Your task to perform on an android device: create a new album in the google photos Image 0: 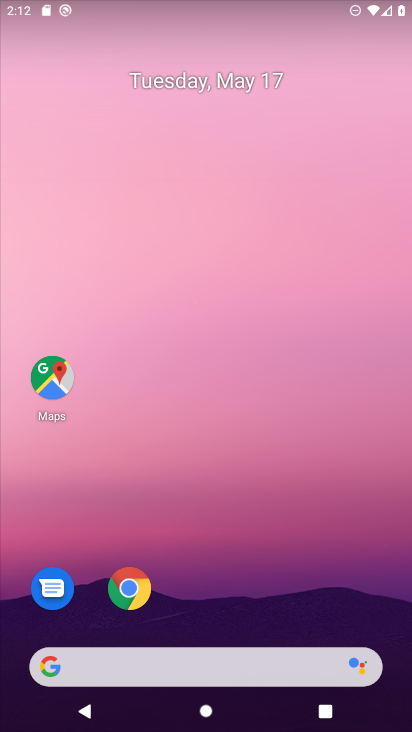
Step 0: drag from (194, 562) to (147, 110)
Your task to perform on an android device: create a new album in the google photos Image 1: 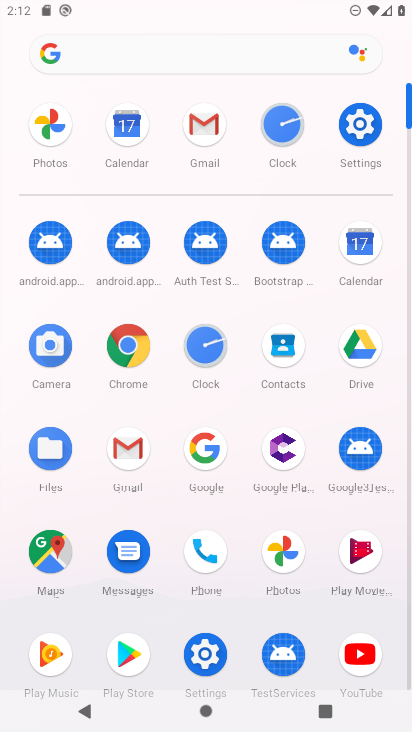
Step 1: click (288, 565)
Your task to perform on an android device: create a new album in the google photos Image 2: 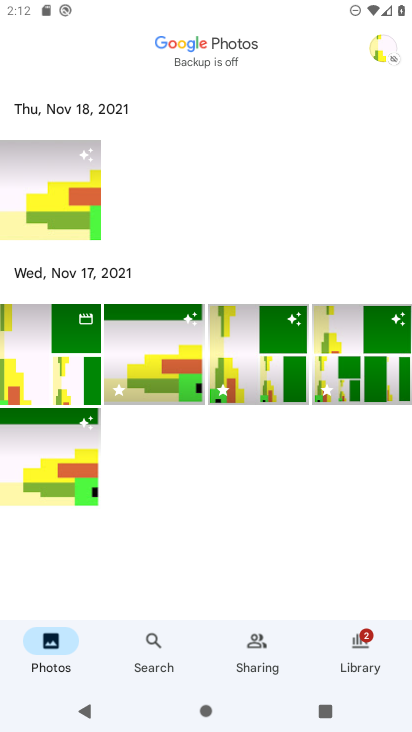
Step 2: click (164, 637)
Your task to perform on an android device: create a new album in the google photos Image 3: 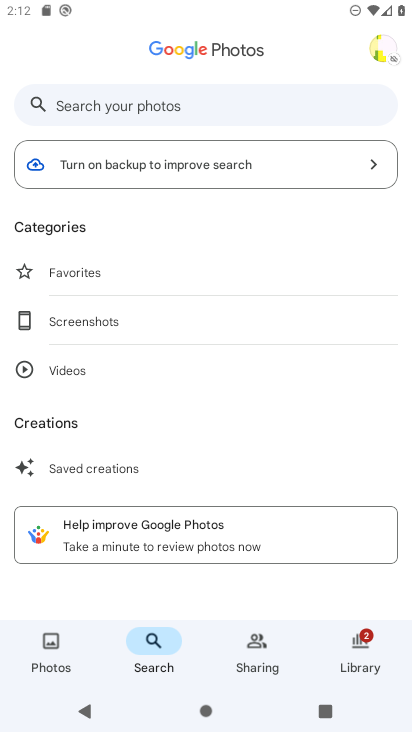
Step 3: click (371, 655)
Your task to perform on an android device: create a new album in the google photos Image 4: 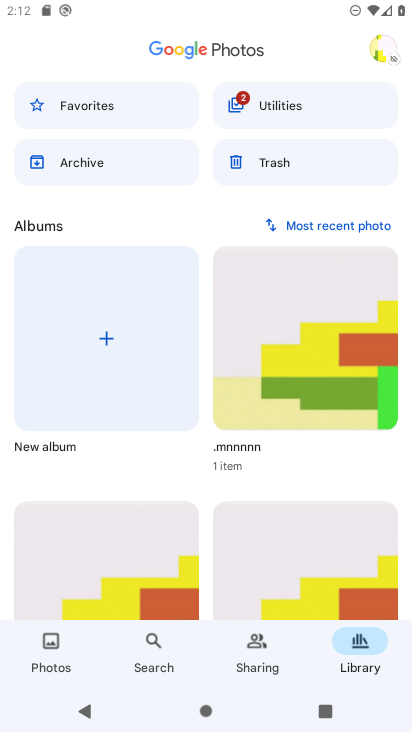
Step 4: click (105, 361)
Your task to perform on an android device: create a new album in the google photos Image 5: 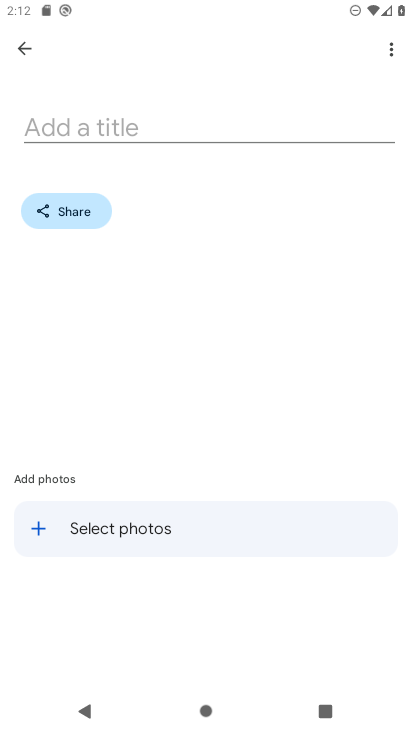
Step 5: click (113, 124)
Your task to perform on an android device: create a new album in the google photos Image 6: 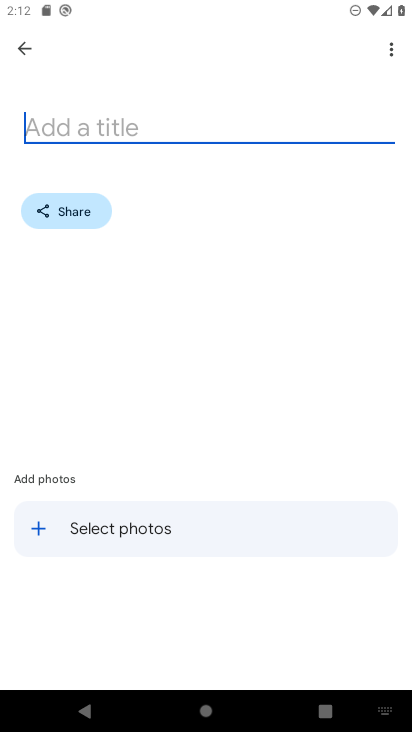
Step 6: type "gdagh"
Your task to perform on an android device: create a new album in the google photos Image 7: 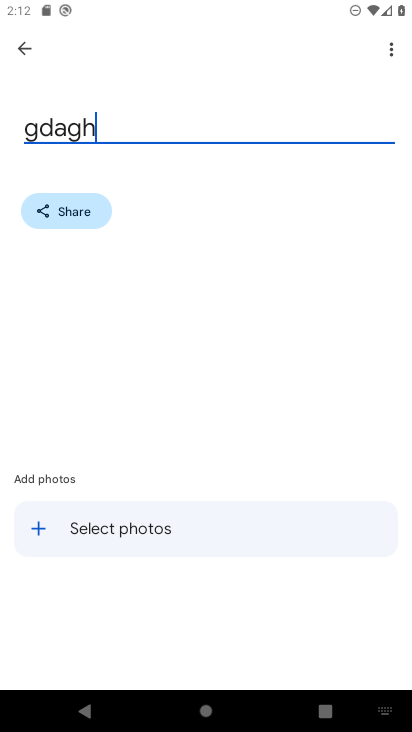
Step 7: click (78, 525)
Your task to perform on an android device: create a new album in the google photos Image 8: 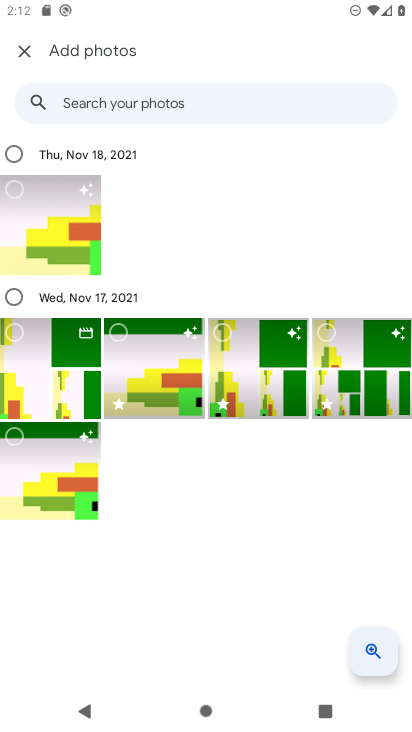
Step 8: click (16, 157)
Your task to perform on an android device: create a new album in the google photos Image 9: 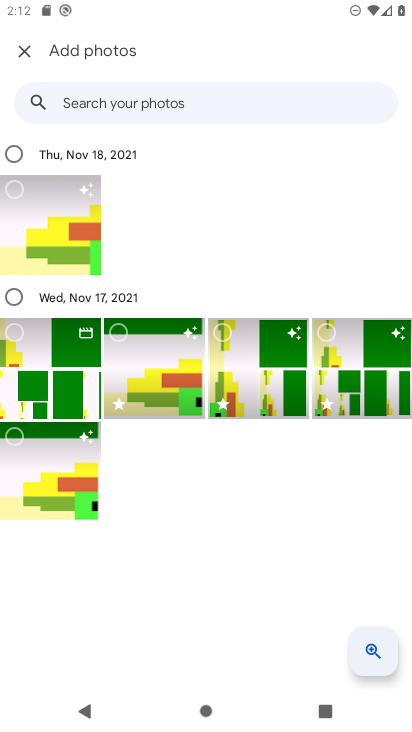
Step 9: click (13, 296)
Your task to perform on an android device: create a new album in the google photos Image 10: 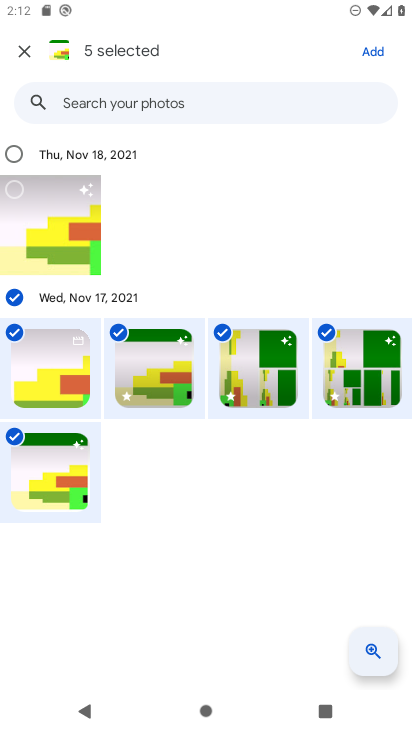
Step 10: click (13, 153)
Your task to perform on an android device: create a new album in the google photos Image 11: 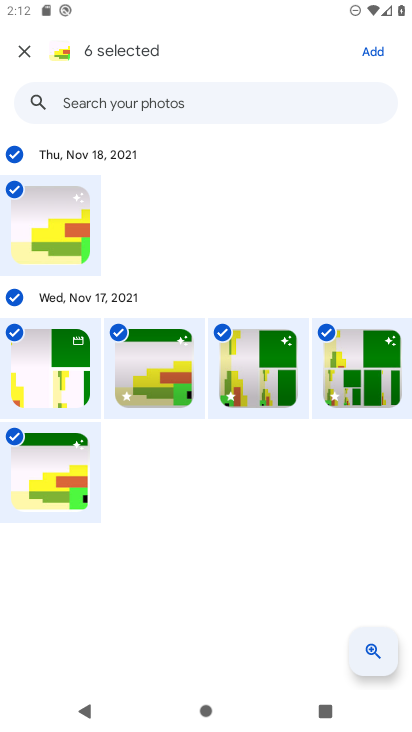
Step 11: click (379, 50)
Your task to perform on an android device: create a new album in the google photos Image 12: 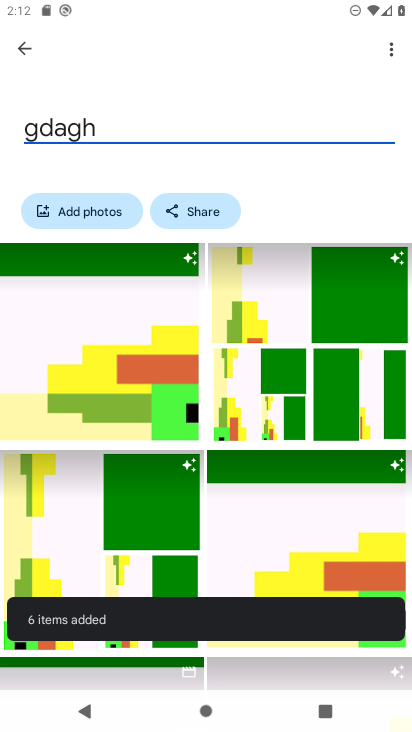
Step 12: click (197, 205)
Your task to perform on an android device: create a new album in the google photos Image 13: 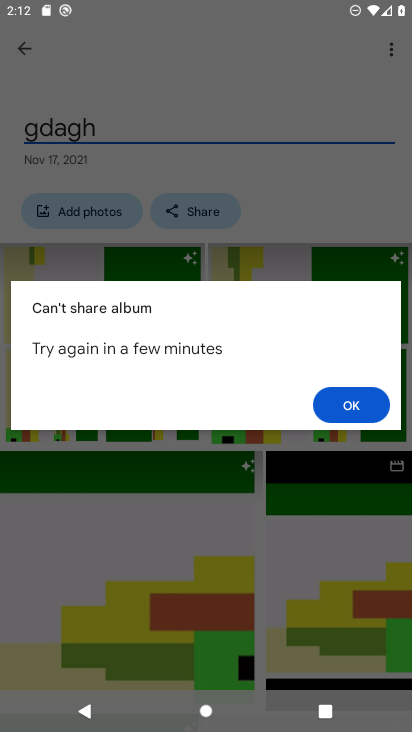
Step 13: click (343, 417)
Your task to perform on an android device: create a new album in the google photos Image 14: 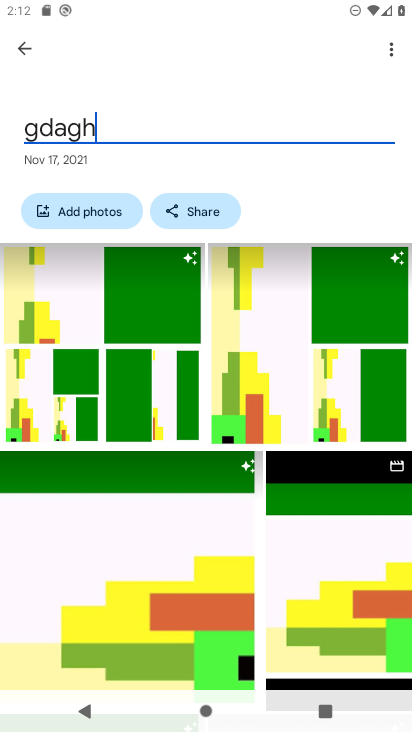
Step 14: drag from (272, 552) to (297, 189)
Your task to perform on an android device: create a new album in the google photos Image 15: 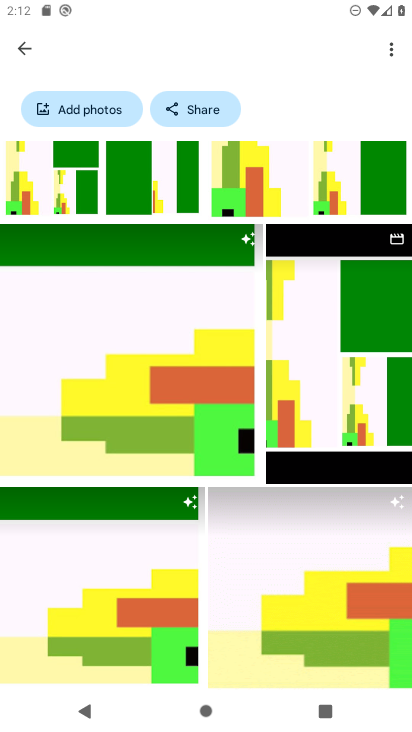
Step 15: click (388, 53)
Your task to perform on an android device: create a new album in the google photos Image 16: 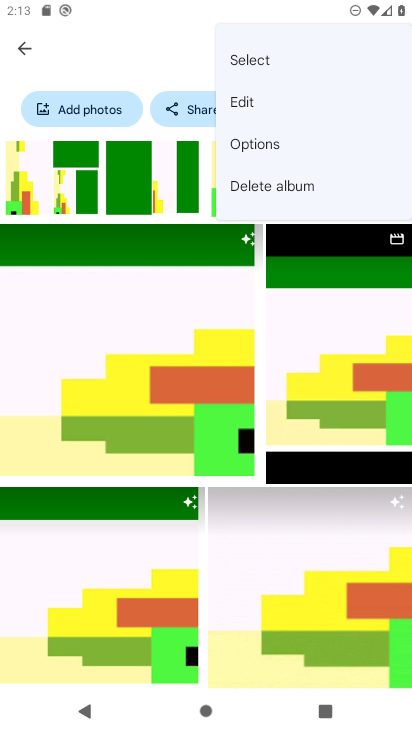
Step 16: click (253, 145)
Your task to perform on an android device: create a new album in the google photos Image 17: 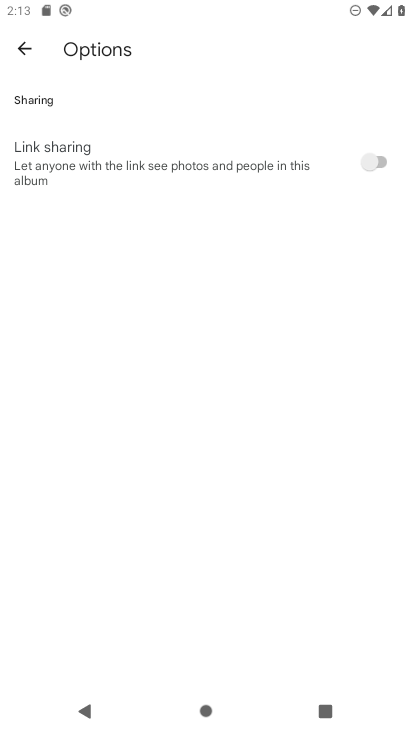
Step 17: click (32, 49)
Your task to perform on an android device: create a new album in the google photos Image 18: 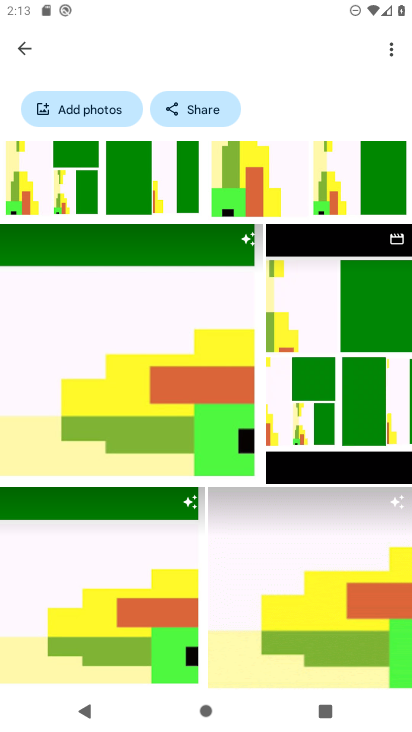
Step 18: click (28, 45)
Your task to perform on an android device: create a new album in the google photos Image 19: 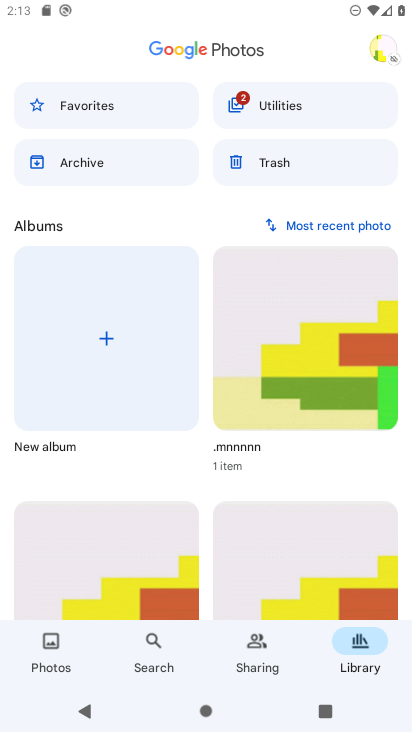
Step 19: task complete